Your task to perform on an android device: turn on the 12-hour format for clock Image 0: 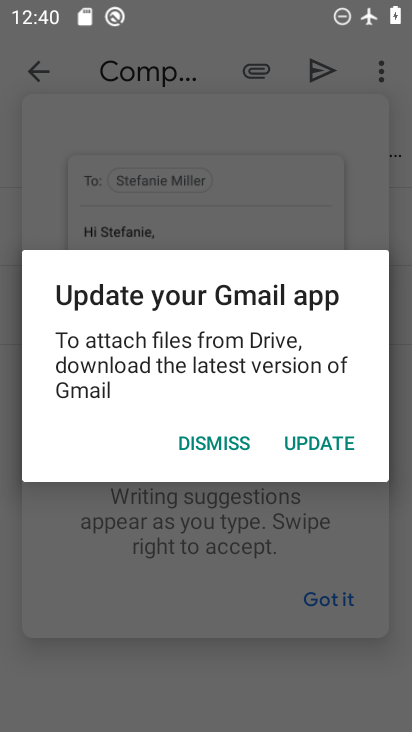
Step 0: press home button
Your task to perform on an android device: turn on the 12-hour format for clock Image 1: 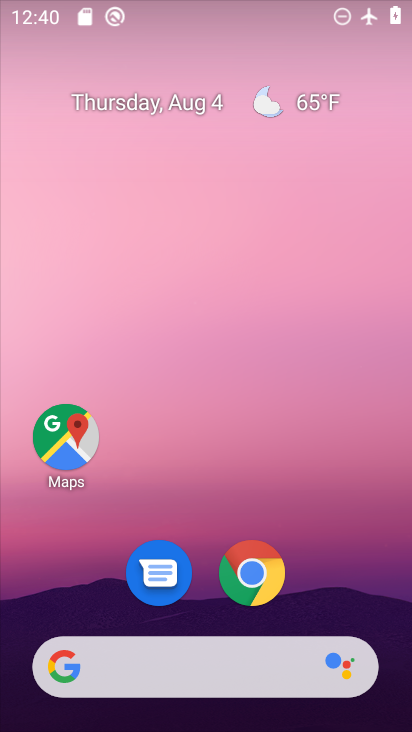
Step 1: drag from (368, 568) to (322, 180)
Your task to perform on an android device: turn on the 12-hour format for clock Image 2: 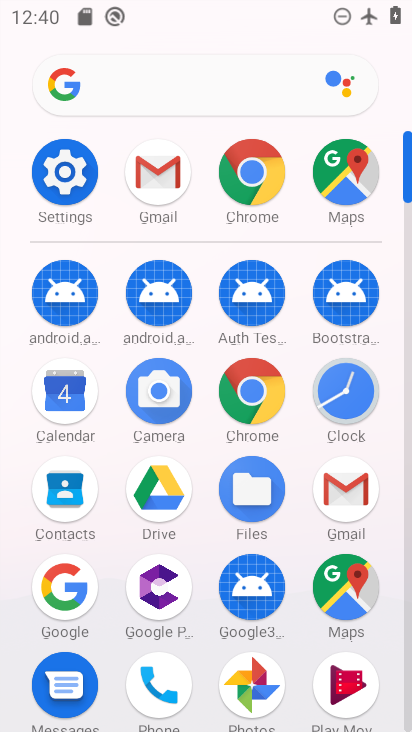
Step 2: click (343, 407)
Your task to perform on an android device: turn on the 12-hour format for clock Image 3: 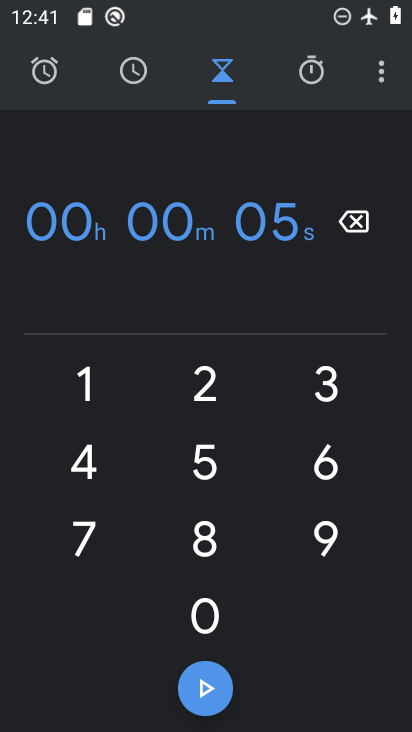
Step 3: click (374, 66)
Your task to perform on an android device: turn on the 12-hour format for clock Image 4: 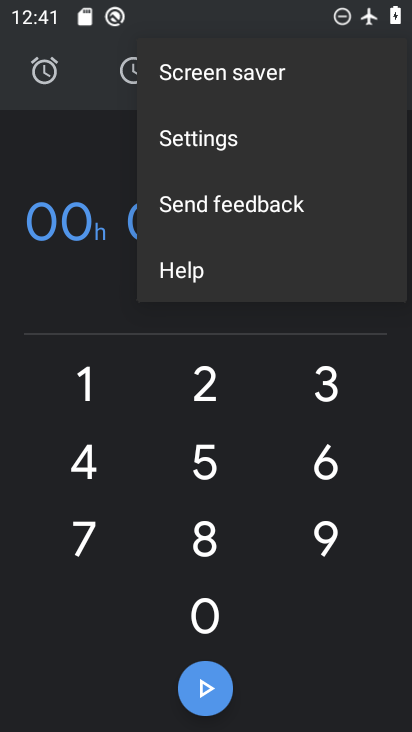
Step 4: click (215, 145)
Your task to perform on an android device: turn on the 12-hour format for clock Image 5: 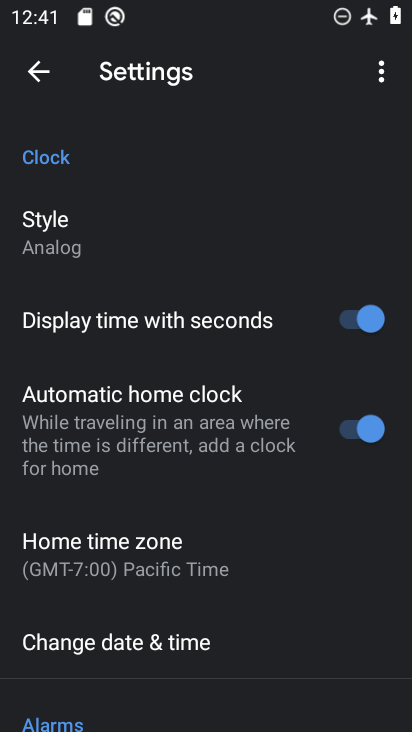
Step 5: click (188, 644)
Your task to perform on an android device: turn on the 12-hour format for clock Image 6: 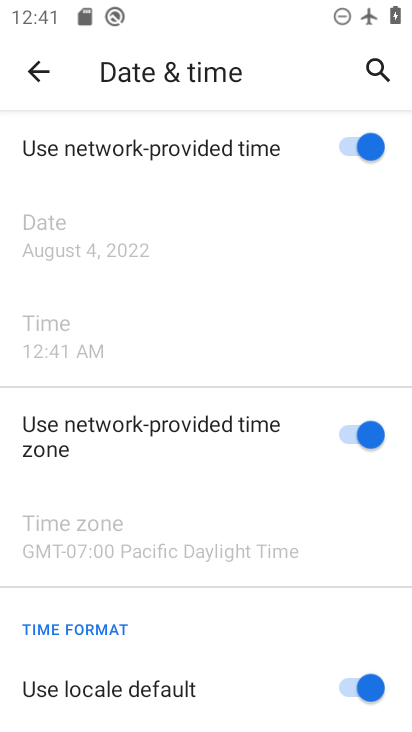
Step 6: task complete